Your task to perform on an android device: snooze an email in the gmail app Image 0: 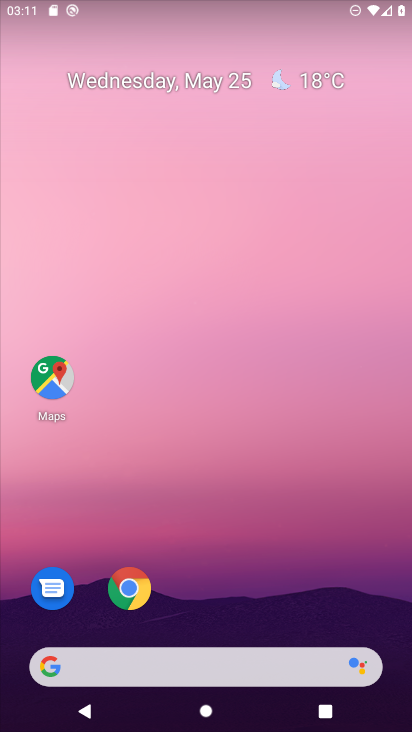
Step 0: press home button
Your task to perform on an android device: snooze an email in the gmail app Image 1: 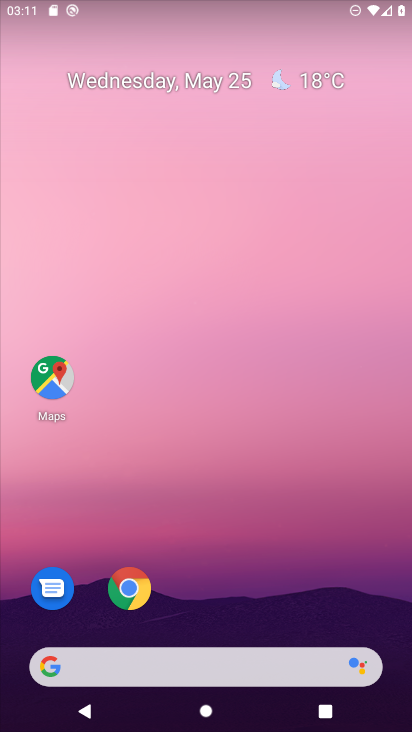
Step 1: drag from (297, 611) to (286, 109)
Your task to perform on an android device: snooze an email in the gmail app Image 2: 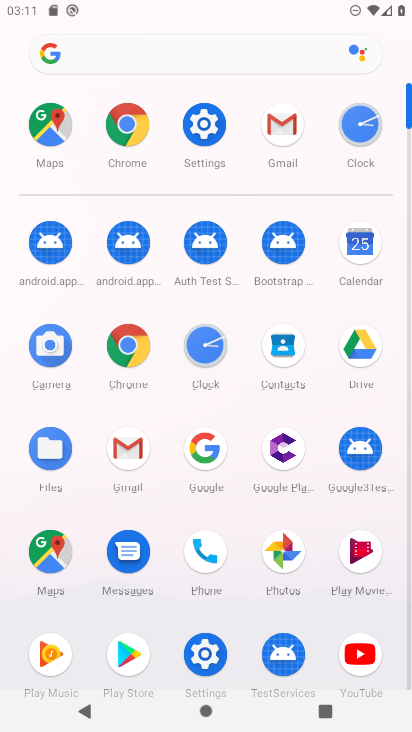
Step 2: click (118, 455)
Your task to perform on an android device: snooze an email in the gmail app Image 3: 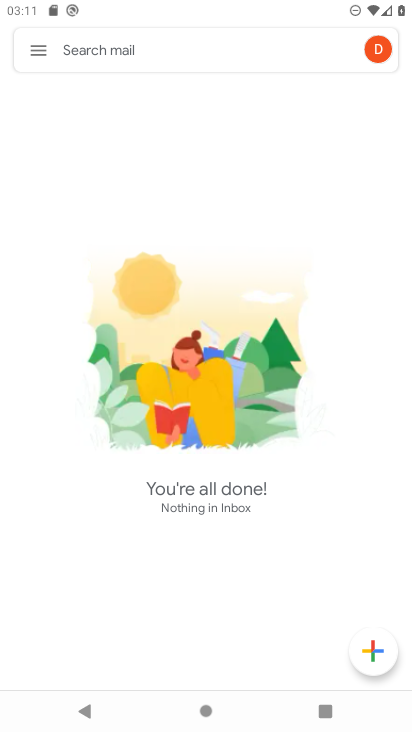
Step 3: click (21, 53)
Your task to perform on an android device: snooze an email in the gmail app Image 4: 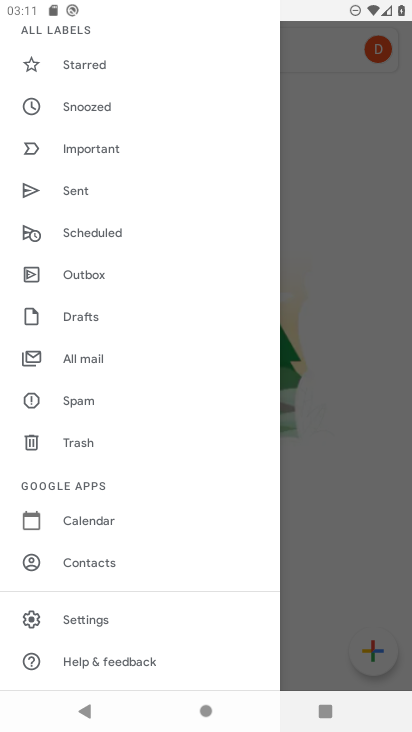
Step 4: task complete